Your task to perform on an android device: toggle sleep mode Image 0: 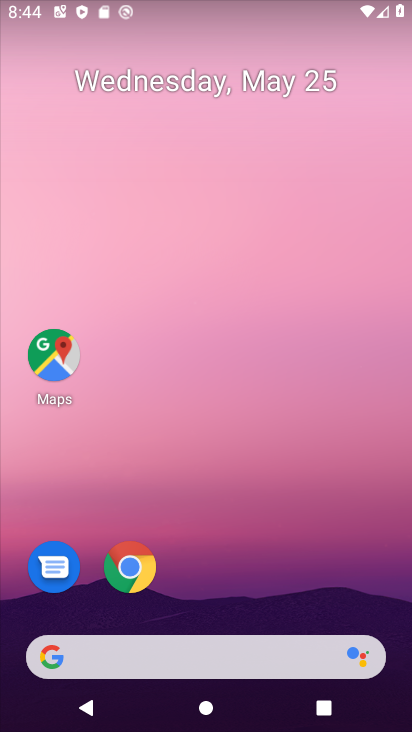
Step 0: drag from (321, 564) to (273, 19)
Your task to perform on an android device: toggle sleep mode Image 1: 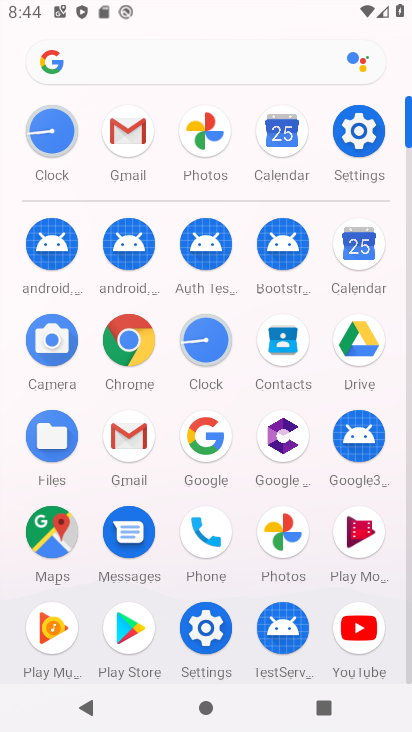
Step 1: click (373, 163)
Your task to perform on an android device: toggle sleep mode Image 2: 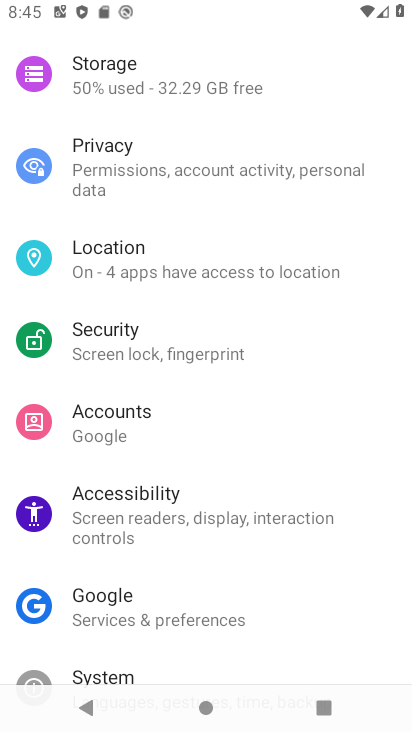
Step 2: drag from (241, 187) to (299, 456)
Your task to perform on an android device: toggle sleep mode Image 3: 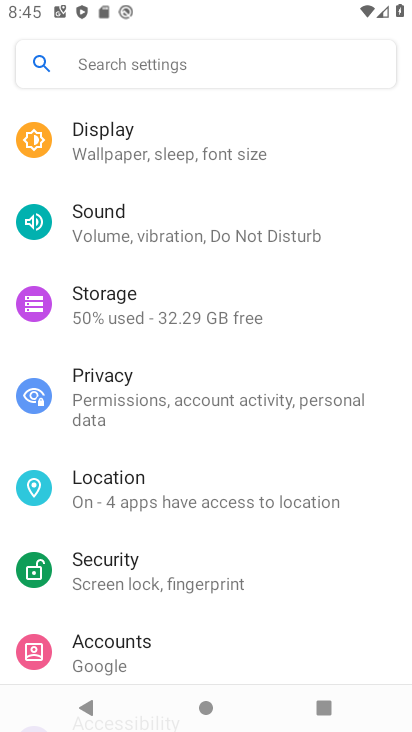
Step 3: click (299, 456)
Your task to perform on an android device: toggle sleep mode Image 4: 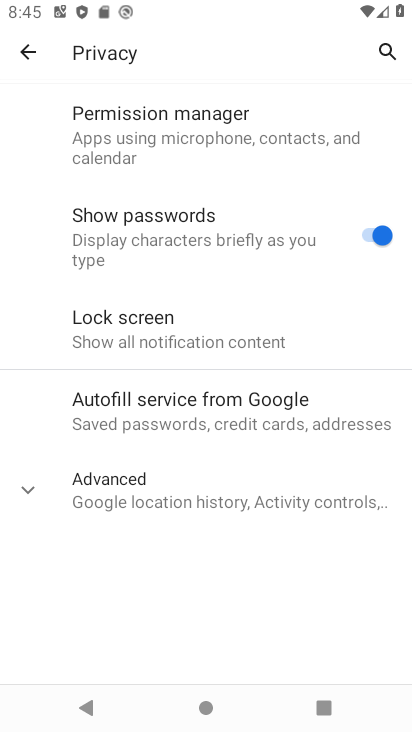
Step 4: click (42, 46)
Your task to perform on an android device: toggle sleep mode Image 5: 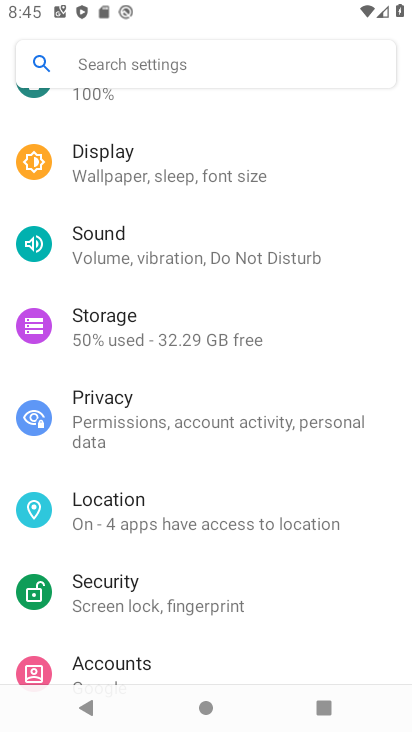
Step 5: click (175, 164)
Your task to perform on an android device: toggle sleep mode Image 6: 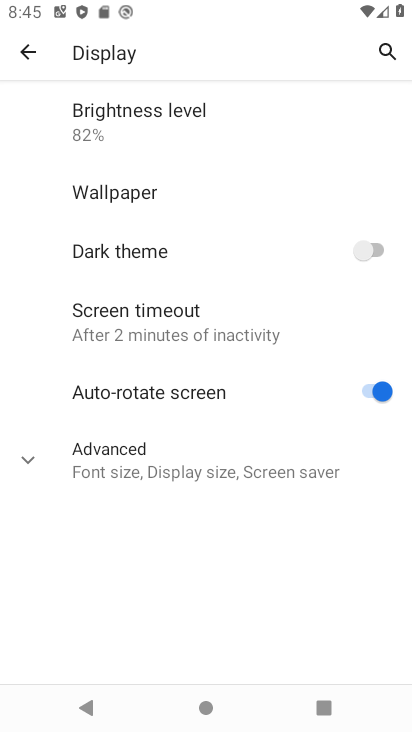
Step 6: click (266, 315)
Your task to perform on an android device: toggle sleep mode Image 7: 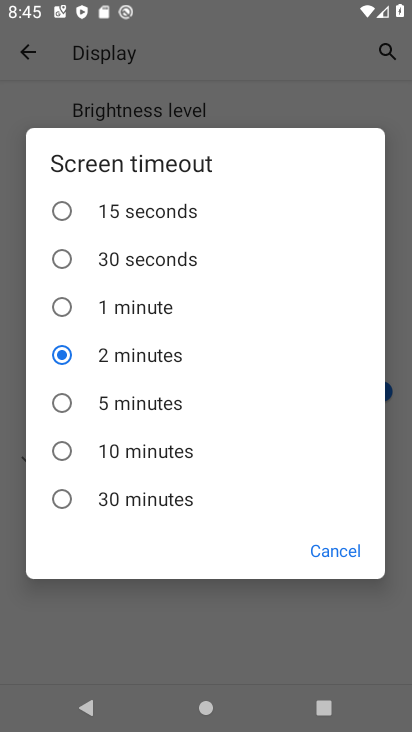
Step 7: click (266, 315)
Your task to perform on an android device: toggle sleep mode Image 8: 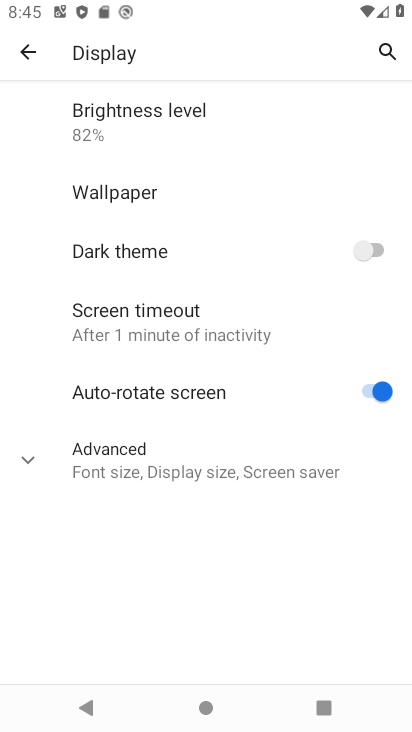
Step 8: click (117, 275)
Your task to perform on an android device: toggle sleep mode Image 9: 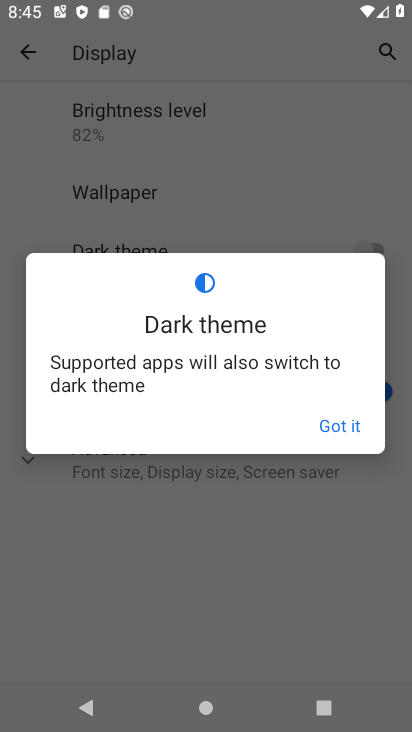
Step 9: task complete